Your task to perform on an android device: Open the map Image 0: 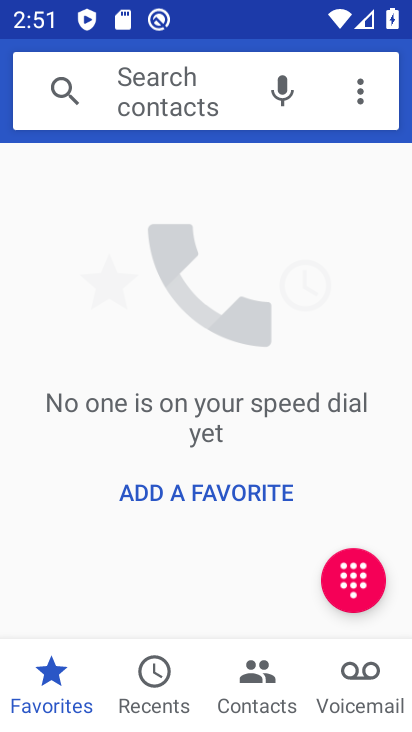
Step 0: press home button
Your task to perform on an android device: Open the map Image 1: 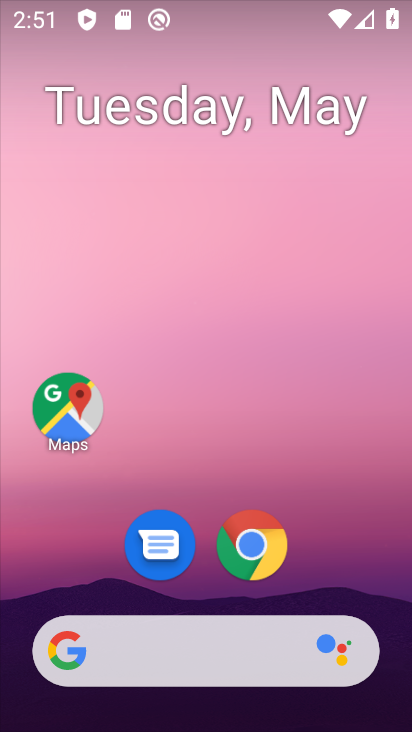
Step 1: click (65, 431)
Your task to perform on an android device: Open the map Image 2: 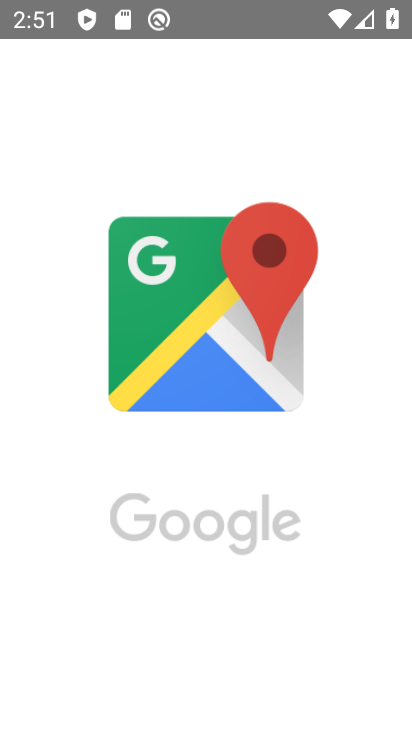
Step 2: task complete